Your task to perform on an android device: see sites visited before in the chrome app Image 0: 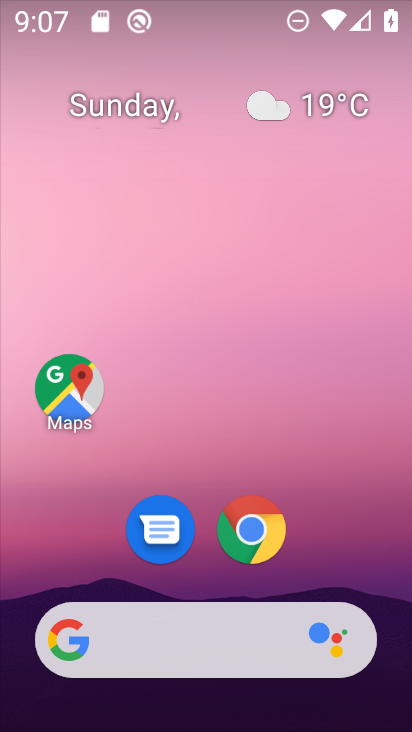
Step 0: press home button
Your task to perform on an android device: see sites visited before in the chrome app Image 1: 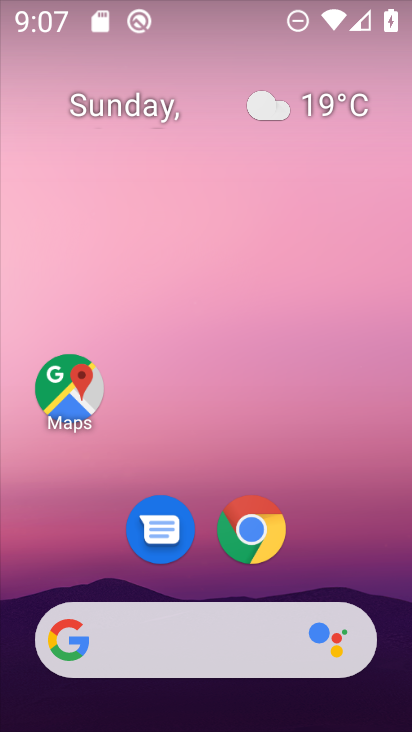
Step 1: click (248, 526)
Your task to perform on an android device: see sites visited before in the chrome app Image 2: 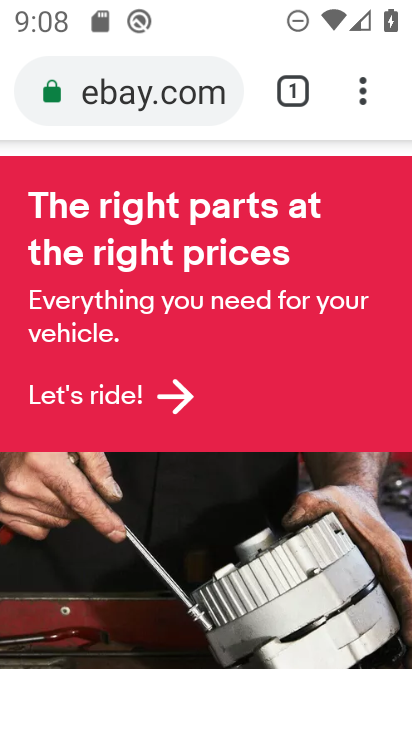
Step 2: click (364, 87)
Your task to perform on an android device: see sites visited before in the chrome app Image 3: 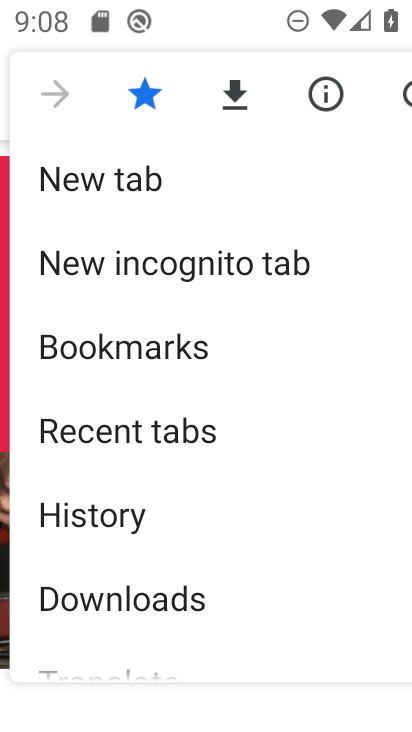
Step 3: click (157, 509)
Your task to perform on an android device: see sites visited before in the chrome app Image 4: 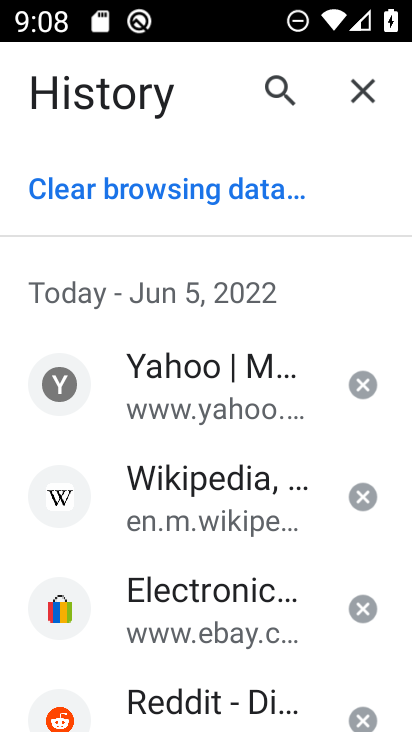
Step 4: task complete